Your task to perform on an android device: check storage Image 0: 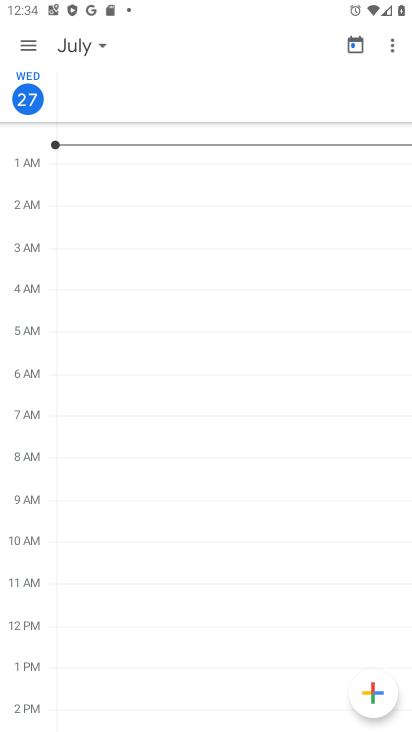
Step 0: press home button
Your task to perform on an android device: check storage Image 1: 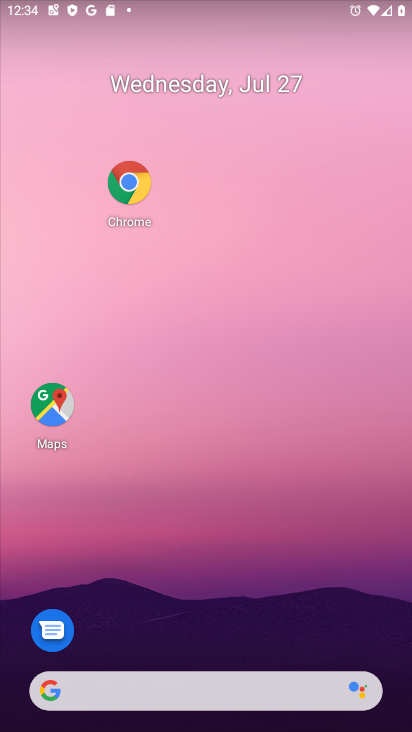
Step 1: drag from (91, 692) to (256, 58)
Your task to perform on an android device: check storage Image 2: 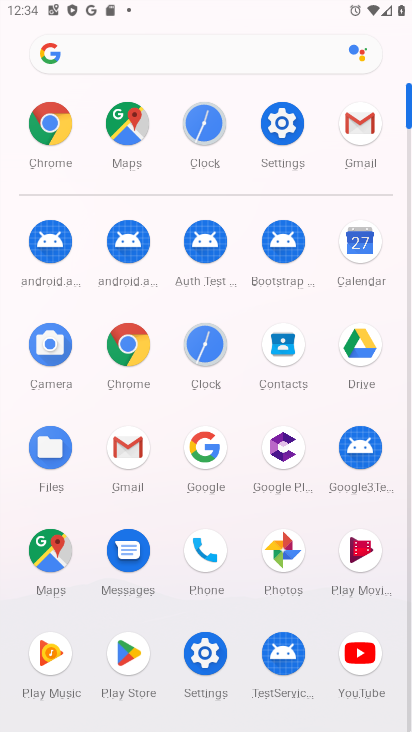
Step 2: click (298, 116)
Your task to perform on an android device: check storage Image 3: 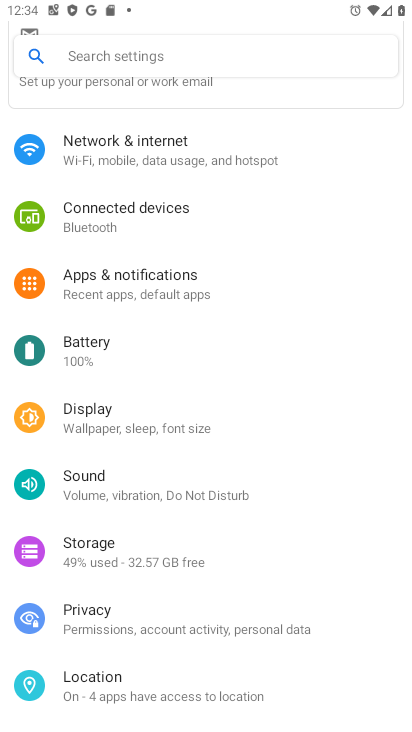
Step 3: click (180, 562)
Your task to perform on an android device: check storage Image 4: 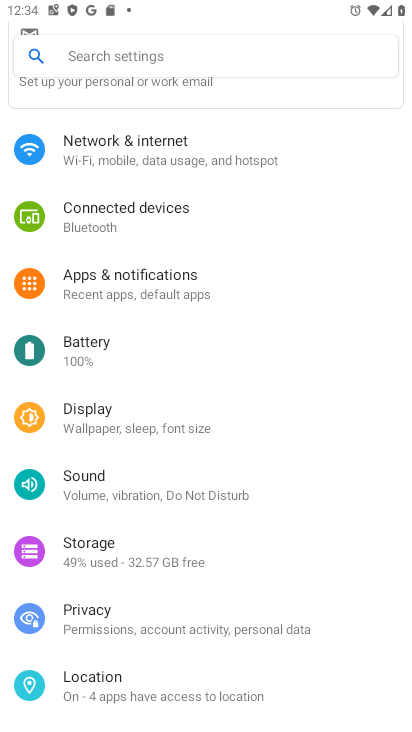
Step 4: click (180, 562)
Your task to perform on an android device: check storage Image 5: 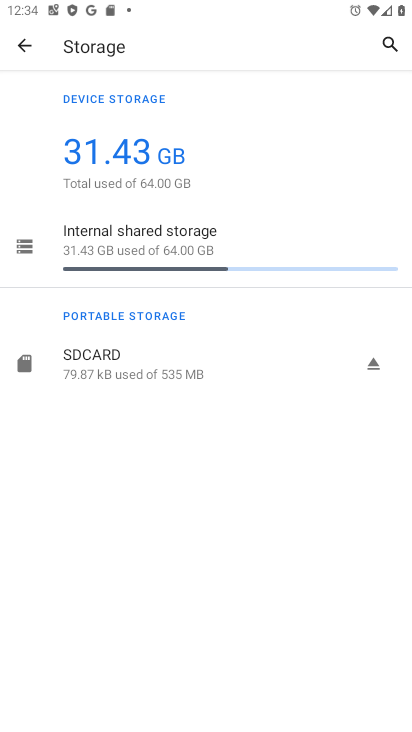
Step 5: task complete